Your task to perform on an android device: Go to Google Image 0: 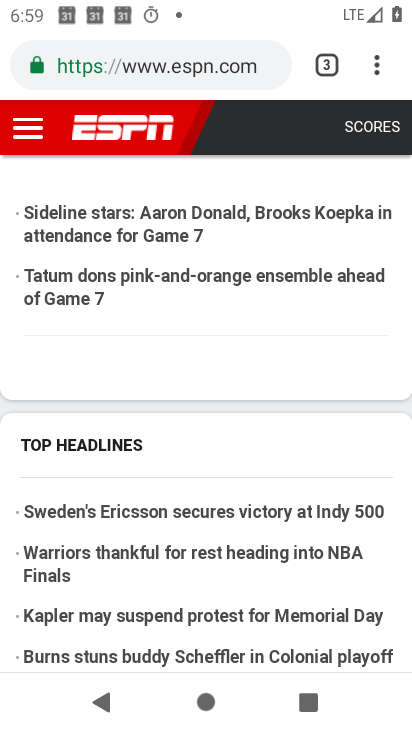
Step 0: press home button
Your task to perform on an android device: Go to Google Image 1: 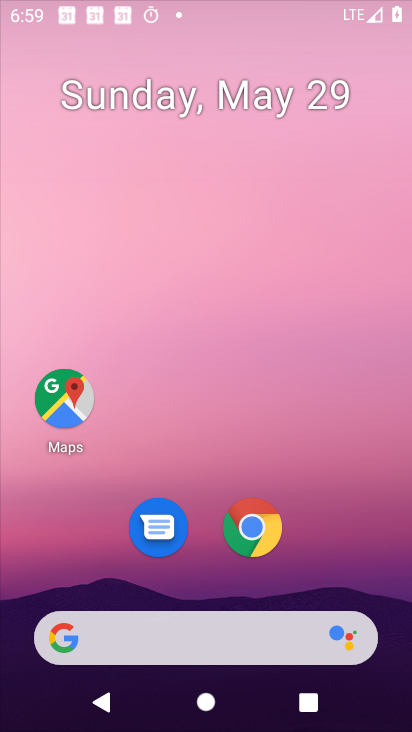
Step 1: drag from (398, 553) to (239, 16)
Your task to perform on an android device: Go to Google Image 2: 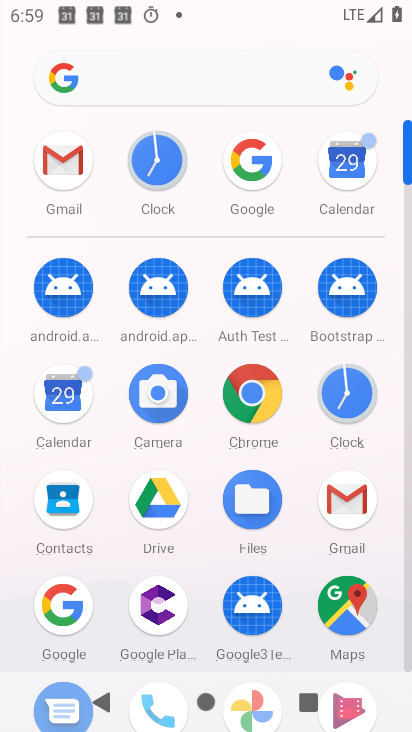
Step 2: click (59, 609)
Your task to perform on an android device: Go to Google Image 3: 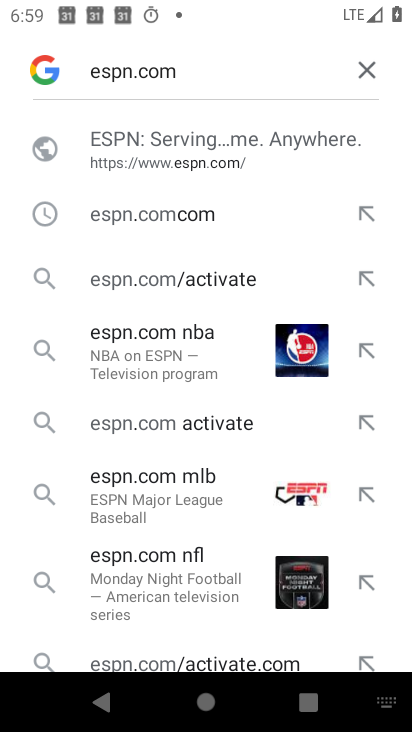
Step 3: task complete